Your task to perform on an android device: change text size in settings app Image 0: 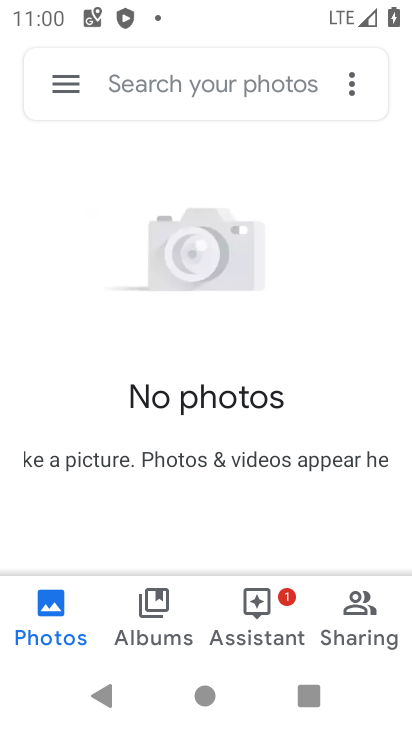
Step 0: press back button
Your task to perform on an android device: change text size in settings app Image 1: 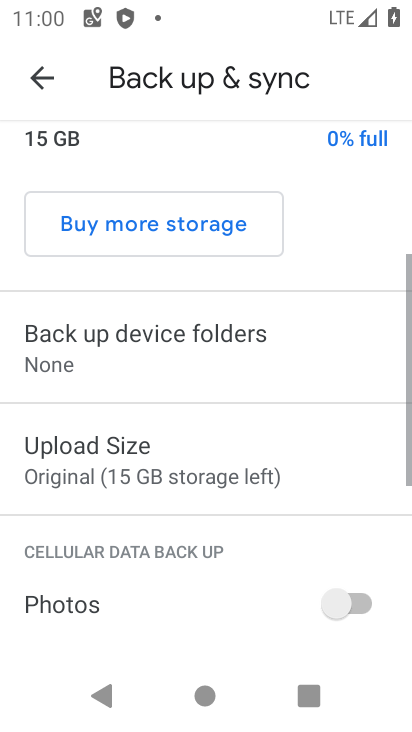
Step 1: press back button
Your task to perform on an android device: change text size in settings app Image 2: 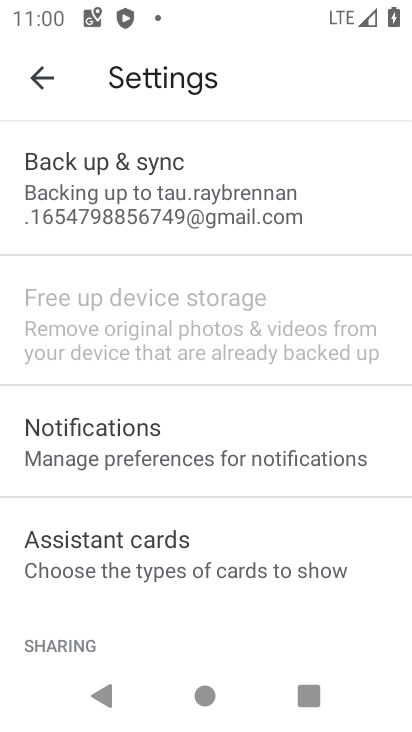
Step 2: click (49, 76)
Your task to perform on an android device: change text size in settings app Image 3: 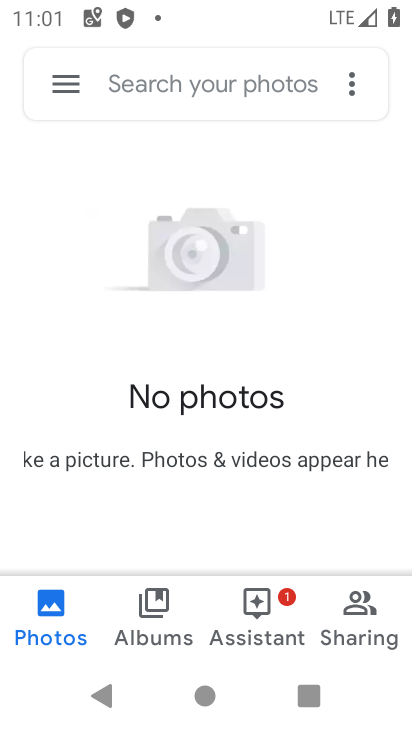
Step 3: press back button
Your task to perform on an android device: change text size in settings app Image 4: 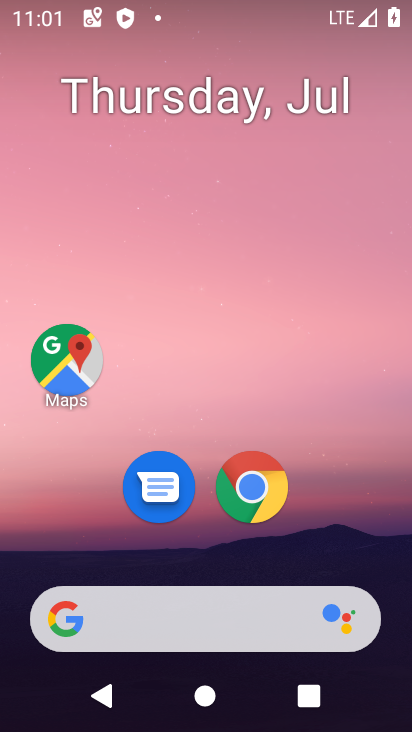
Step 4: drag from (235, 550) to (271, 0)
Your task to perform on an android device: change text size in settings app Image 5: 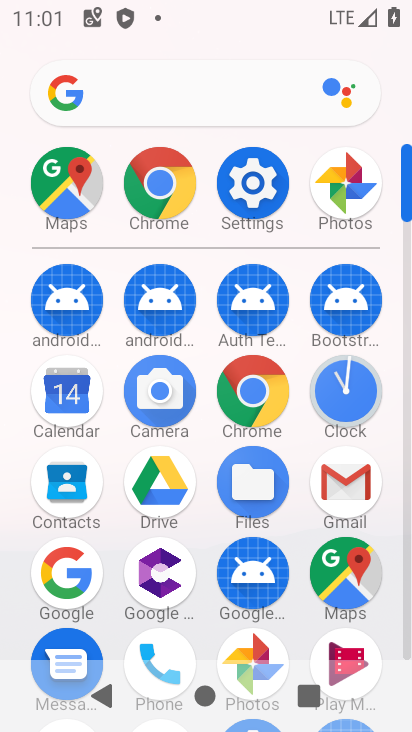
Step 5: click (262, 175)
Your task to perform on an android device: change text size in settings app Image 6: 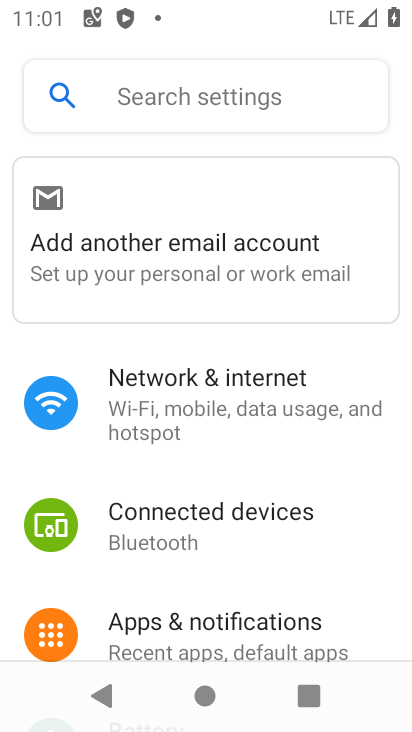
Step 6: click (178, 89)
Your task to perform on an android device: change text size in settings app Image 7: 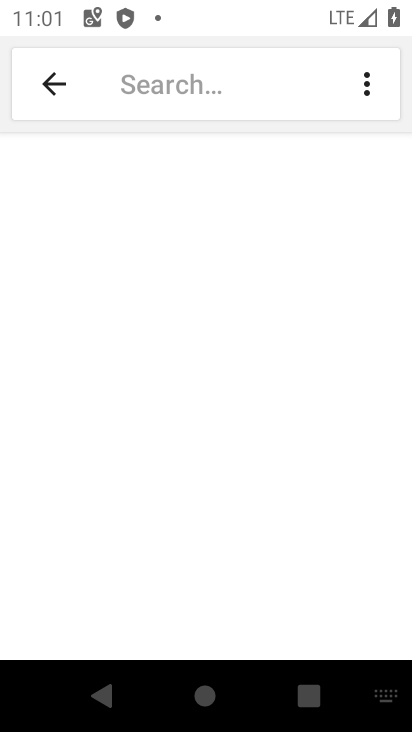
Step 7: type "text size"
Your task to perform on an android device: change text size in settings app Image 8: 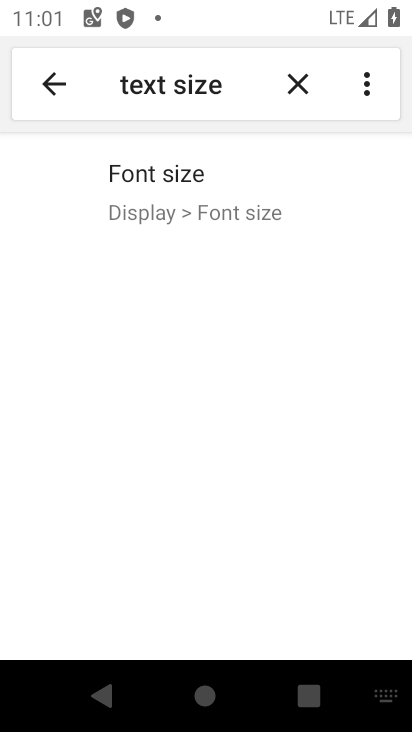
Step 8: click (172, 196)
Your task to perform on an android device: change text size in settings app Image 9: 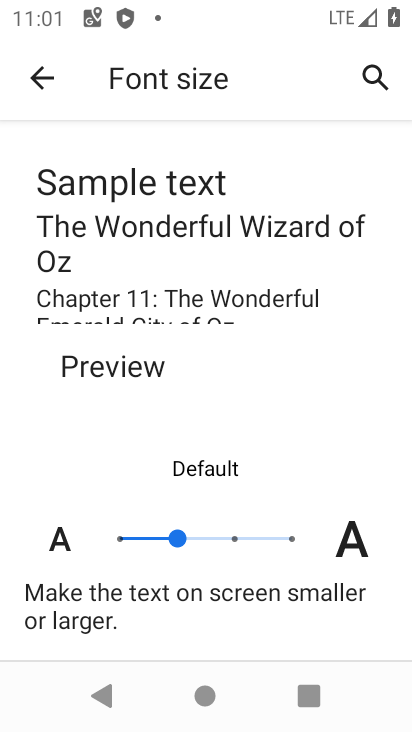
Step 9: task complete